Your task to perform on an android device: change keyboard looks Image 0: 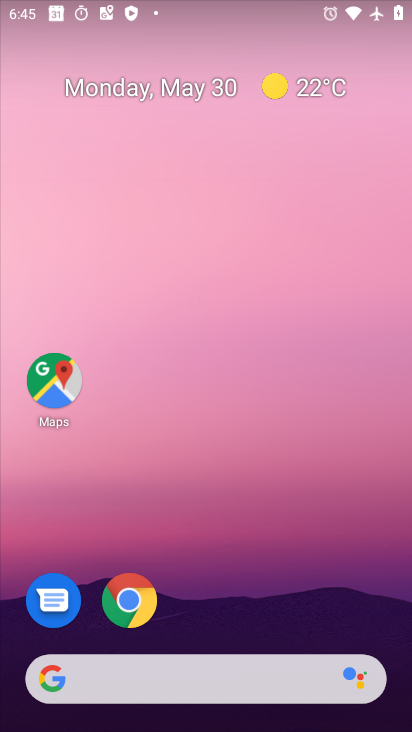
Step 0: drag from (250, 632) to (252, 4)
Your task to perform on an android device: change keyboard looks Image 1: 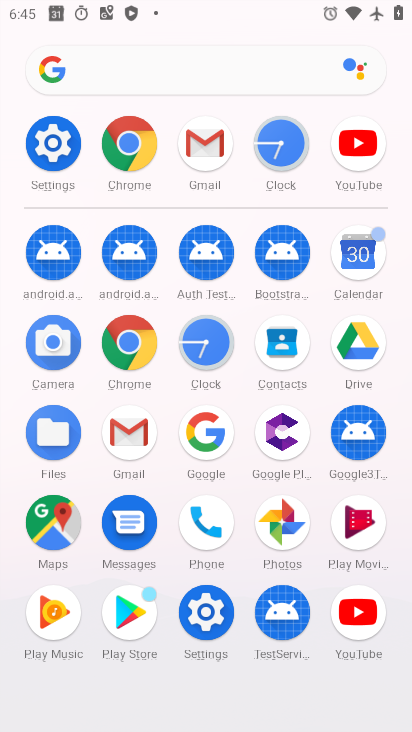
Step 1: click (58, 155)
Your task to perform on an android device: change keyboard looks Image 2: 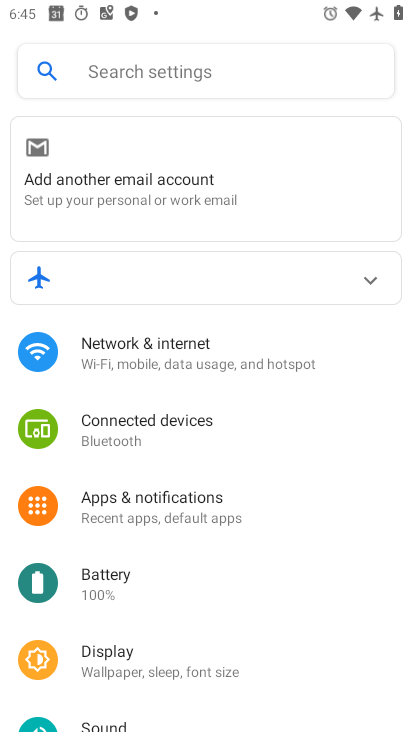
Step 2: drag from (360, 648) to (352, 416)
Your task to perform on an android device: change keyboard looks Image 3: 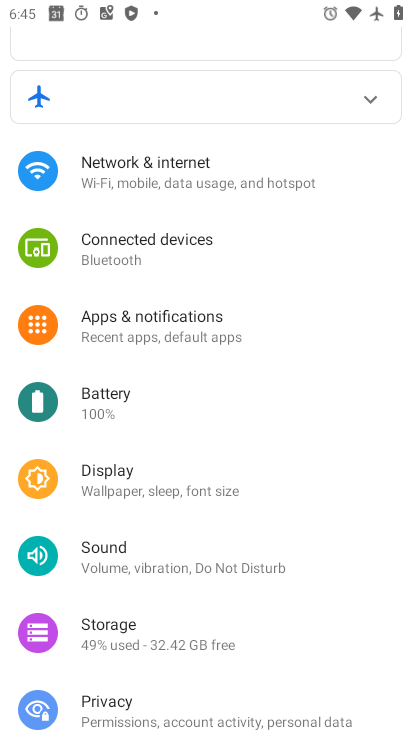
Step 3: drag from (378, 609) to (357, 3)
Your task to perform on an android device: change keyboard looks Image 4: 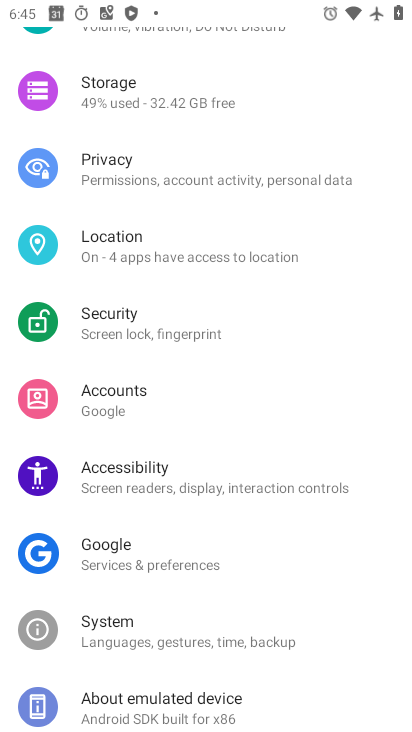
Step 4: click (125, 634)
Your task to perform on an android device: change keyboard looks Image 5: 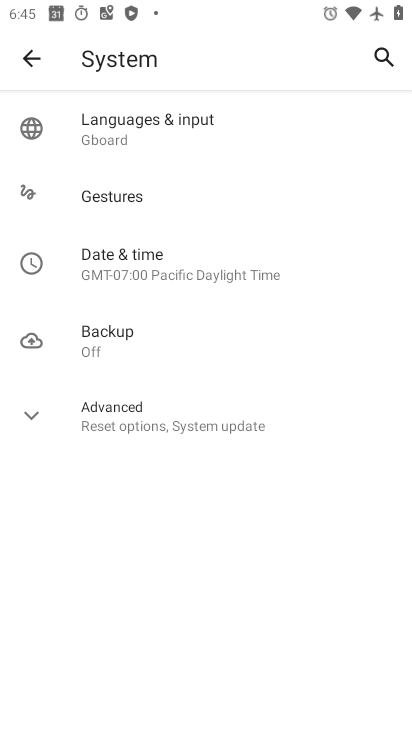
Step 5: click (139, 131)
Your task to perform on an android device: change keyboard looks Image 6: 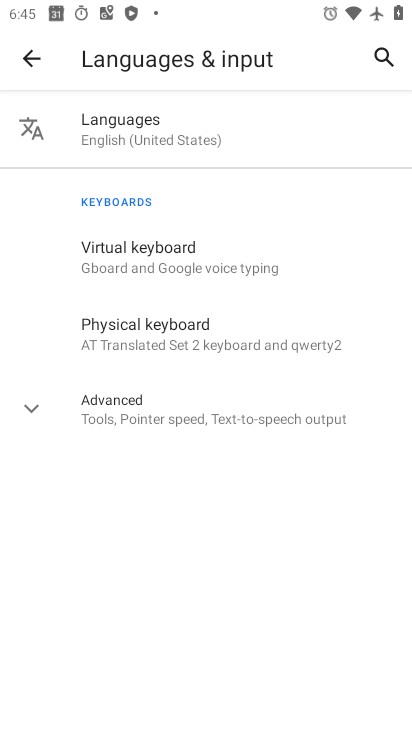
Step 6: click (144, 273)
Your task to perform on an android device: change keyboard looks Image 7: 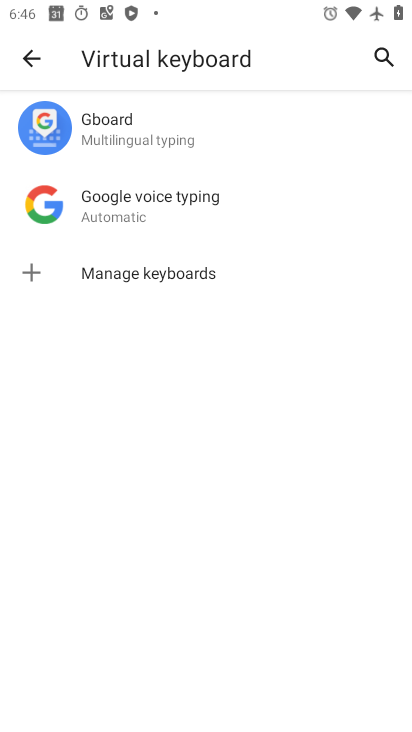
Step 7: click (120, 135)
Your task to perform on an android device: change keyboard looks Image 8: 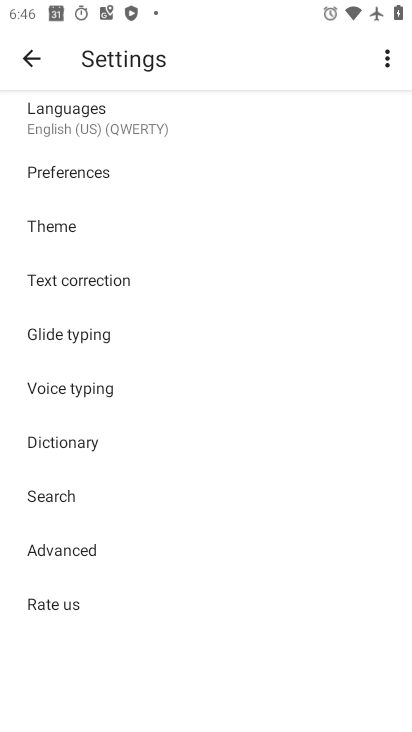
Step 8: click (62, 223)
Your task to perform on an android device: change keyboard looks Image 9: 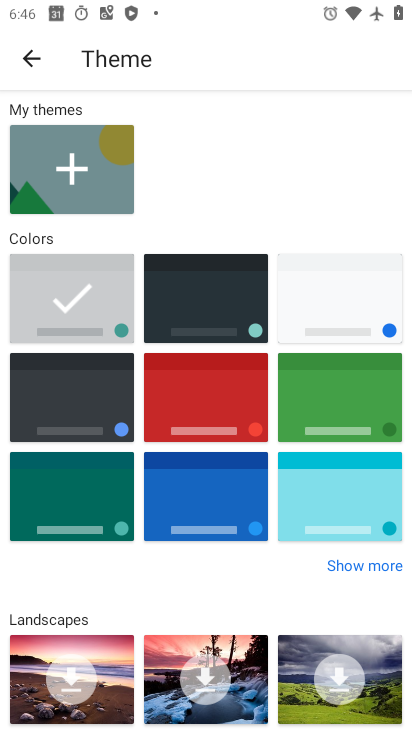
Step 9: click (236, 298)
Your task to perform on an android device: change keyboard looks Image 10: 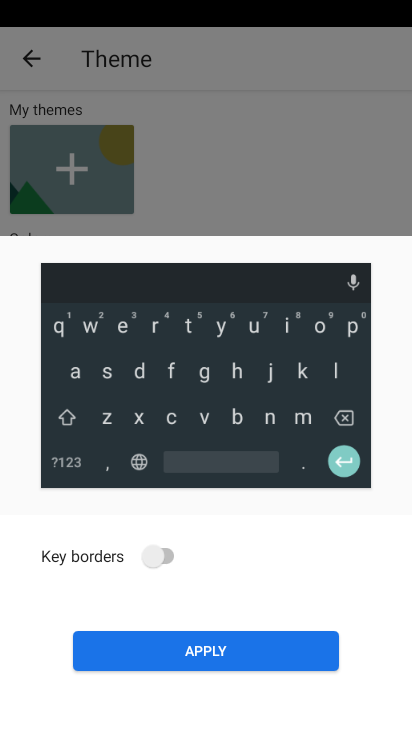
Step 10: click (272, 653)
Your task to perform on an android device: change keyboard looks Image 11: 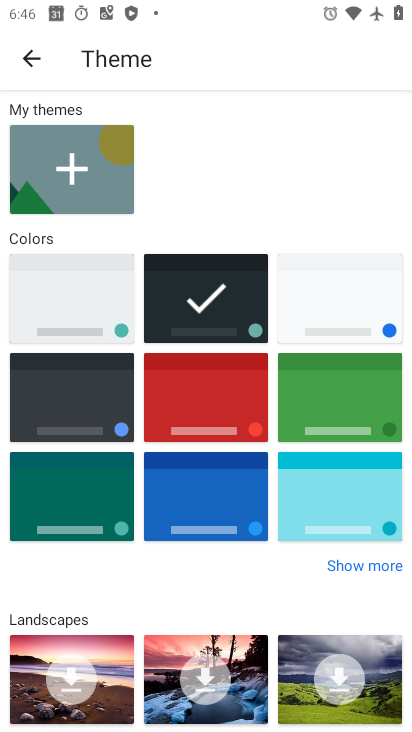
Step 11: task complete